Your task to perform on an android device: install app "NewsBreak: Local News & Alerts" Image 0: 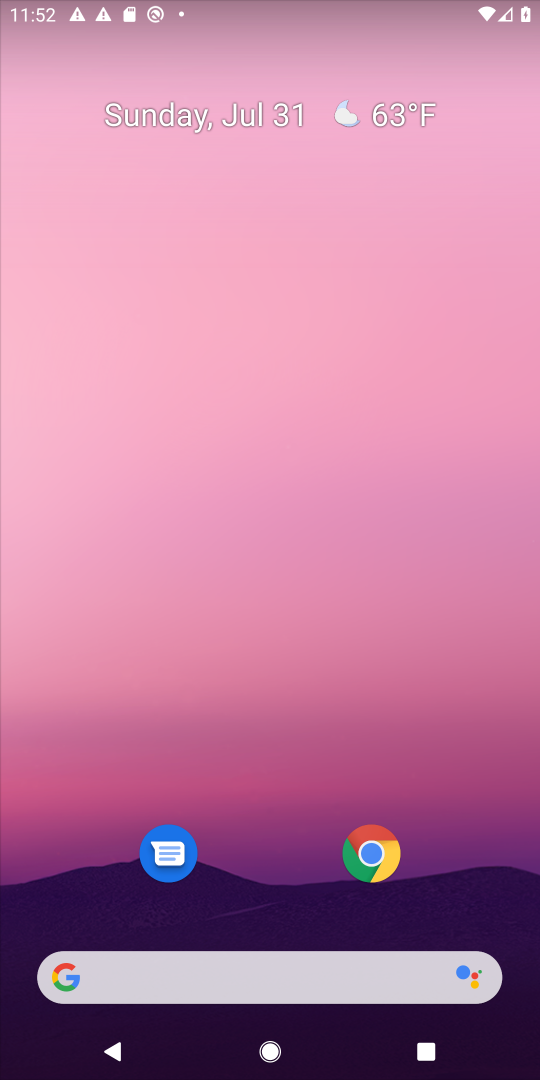
Step 0: drag from (294, 1027) to (218, 233)
Your task to perform on an android device: install app "NewsBreak: Local News & Alerts" Image 1: 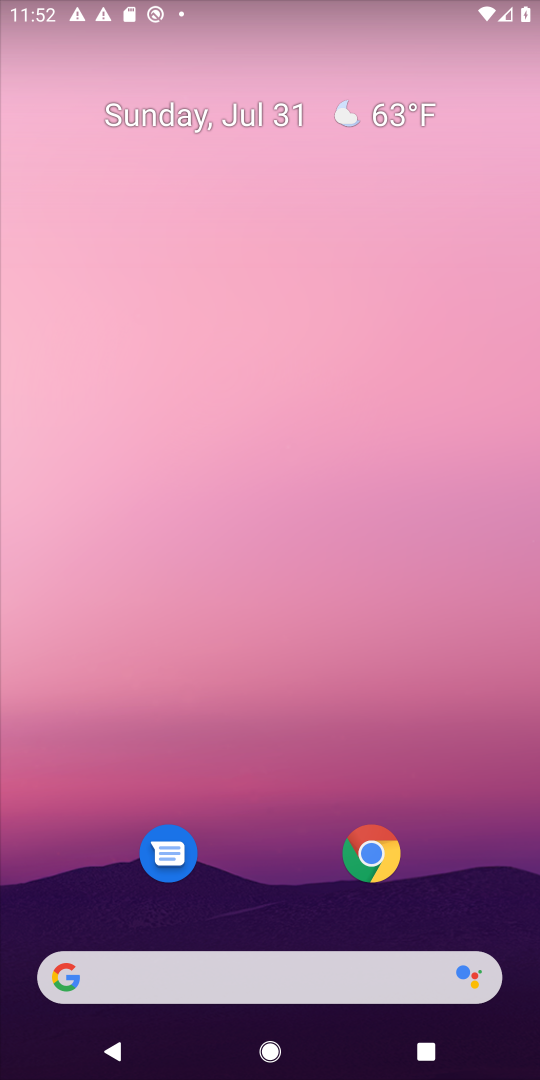
Step 1: drag from (310, 1076) to (305, 160)
Your task to perform on an android device: install app "NewsBreak: Local News & Alerts" Image 2: 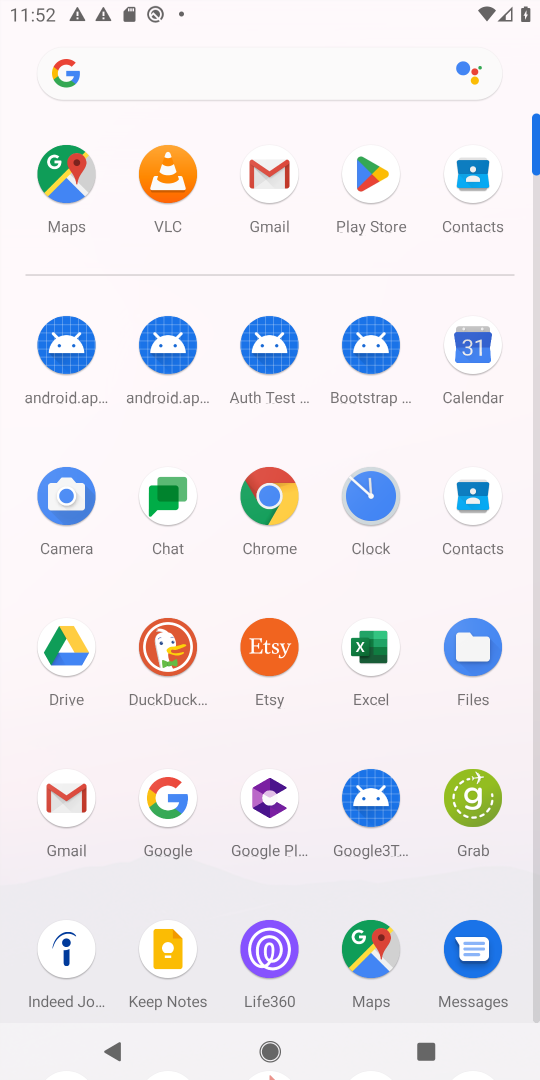
Step 2: click (380, 167)
Your task to perform on an android device: install app "NewsBreak: Local News & Alerts" Image 3: 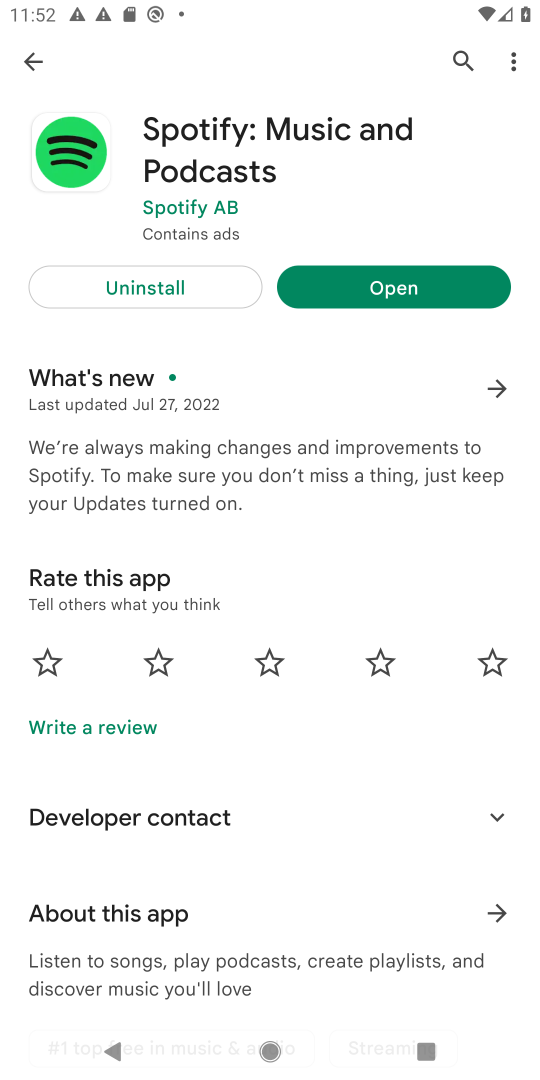
Step 3: click (462, 56)
Your task to perform on an android device: install app "NewsBreak: Local News & Alerts" Image 4: 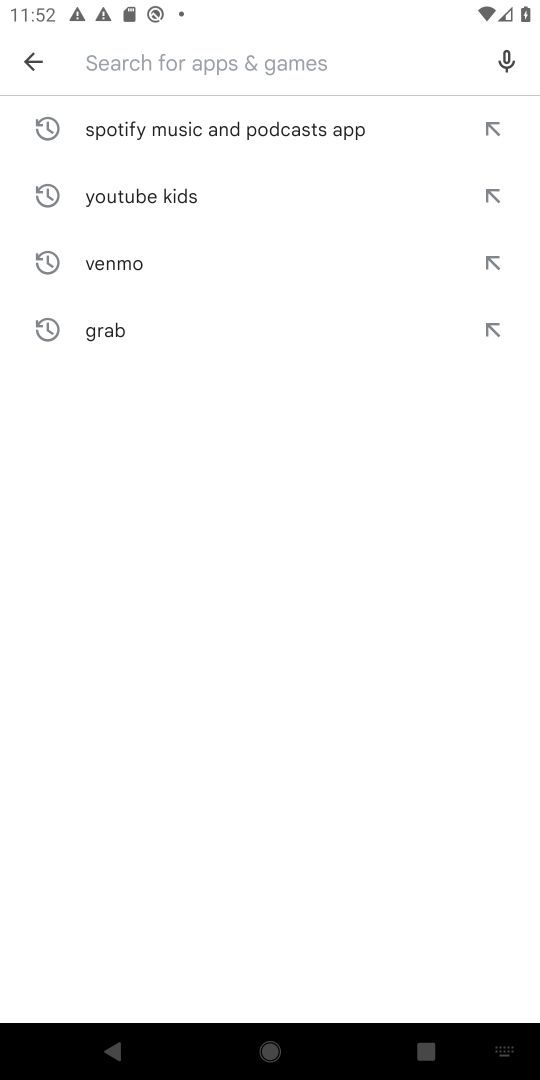
Step 4: type "NewsBreak: Local News & Alerts"
Your task to perform on an android device: install app "NewsBreak: Local News & Alerts" Image 5: 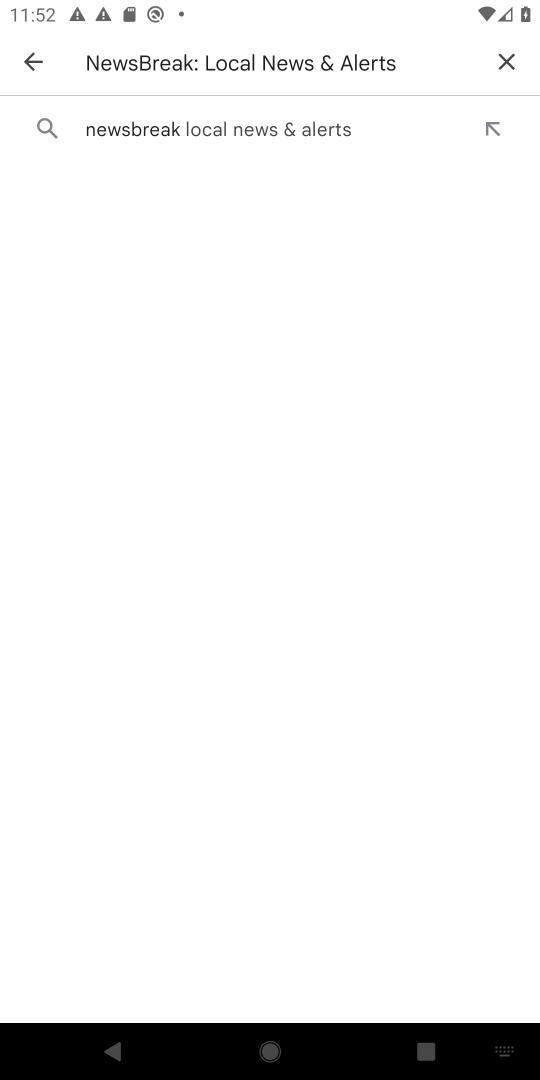
Step 5: click (252, 134)
Your task to perform on an android device: install app "NewsBreak: Local News & Alerts" Image 6: 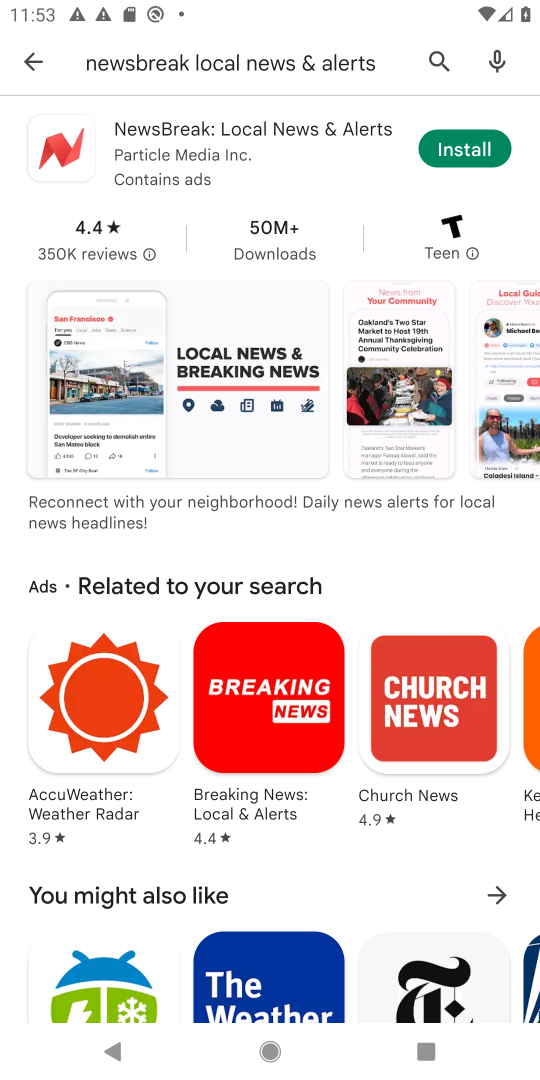
Step 6: click (468, 143)
Your task to perform on an android device: install app "NewsBreak: Local News & Alerts" Image 7: 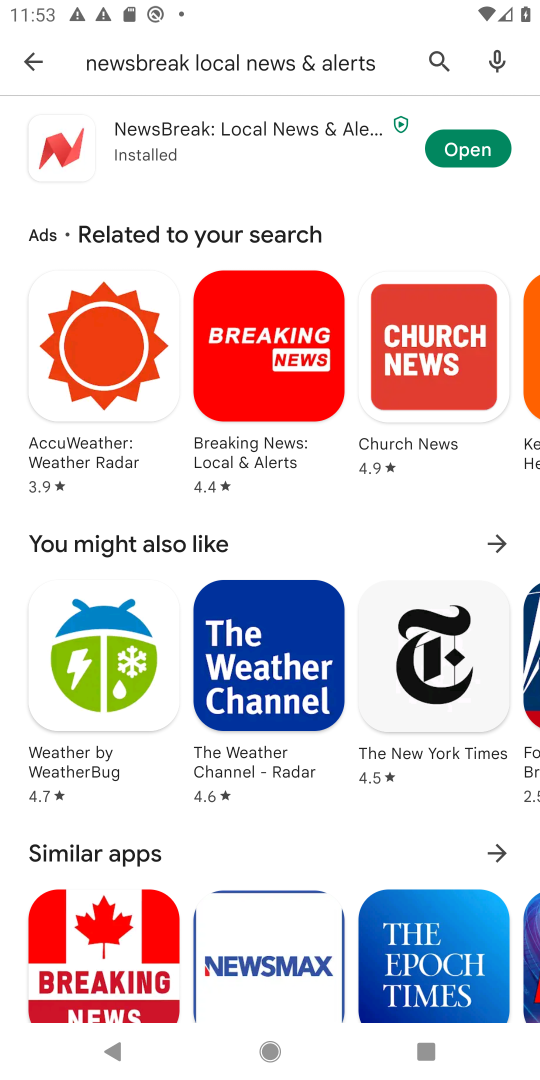
Step 7: task complete